Your task to perform on an android device: Clear the shopping cart on ebay.com. Image 0: 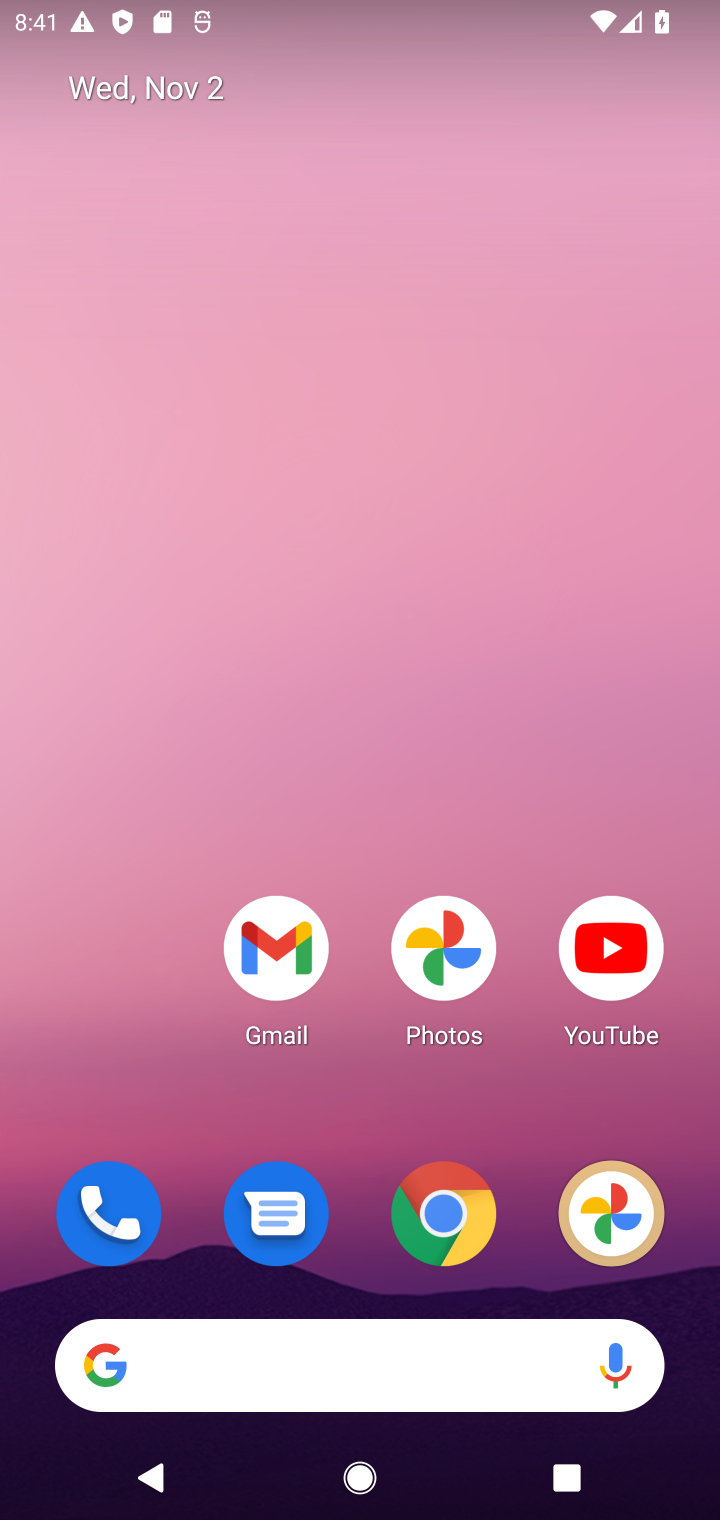
Step 0: click (461, 1245)
Your task to perform on an android device: Clear the shopping cart on ebay.com. Image 1: 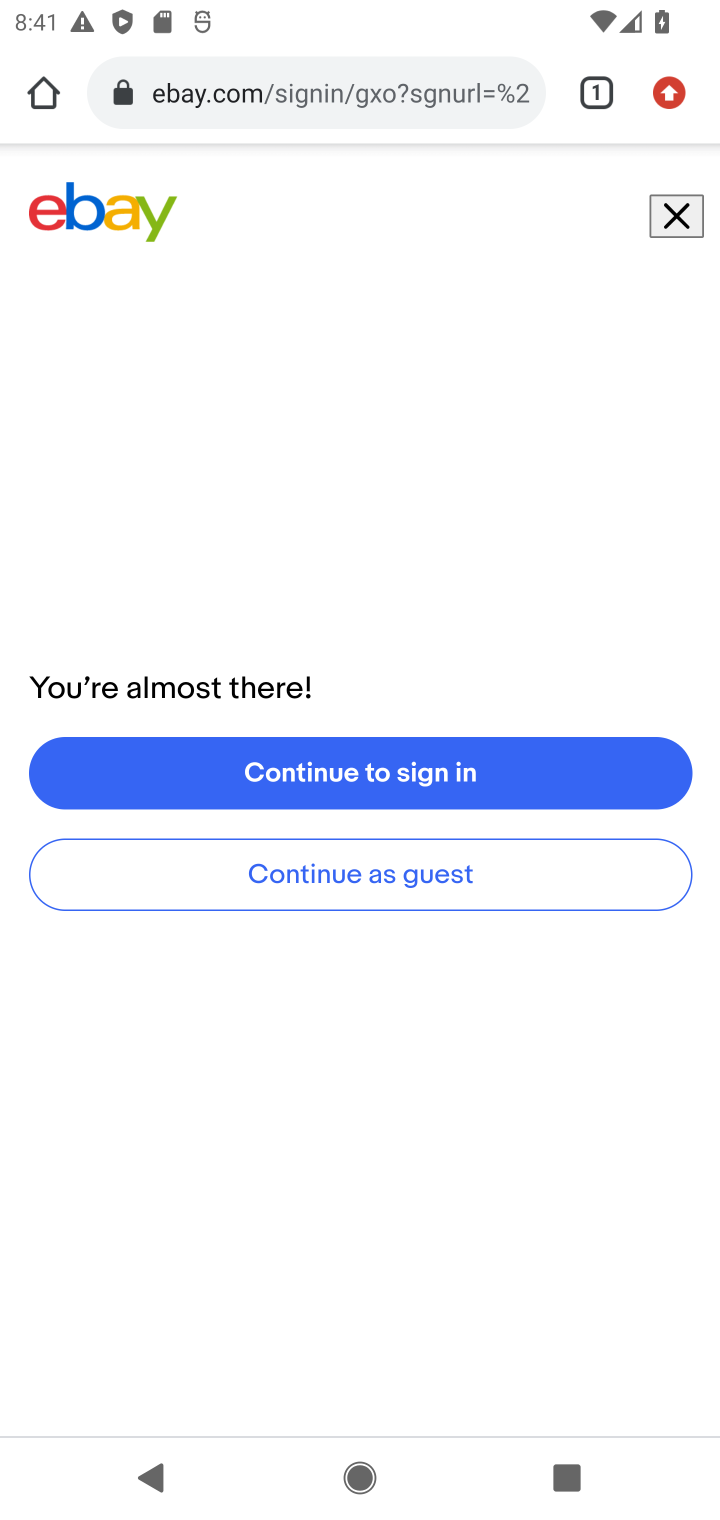
Step 1: click (323, 114)
Your task to perform on an android device: Clear the shopping cart on ebay.com. Image 2: 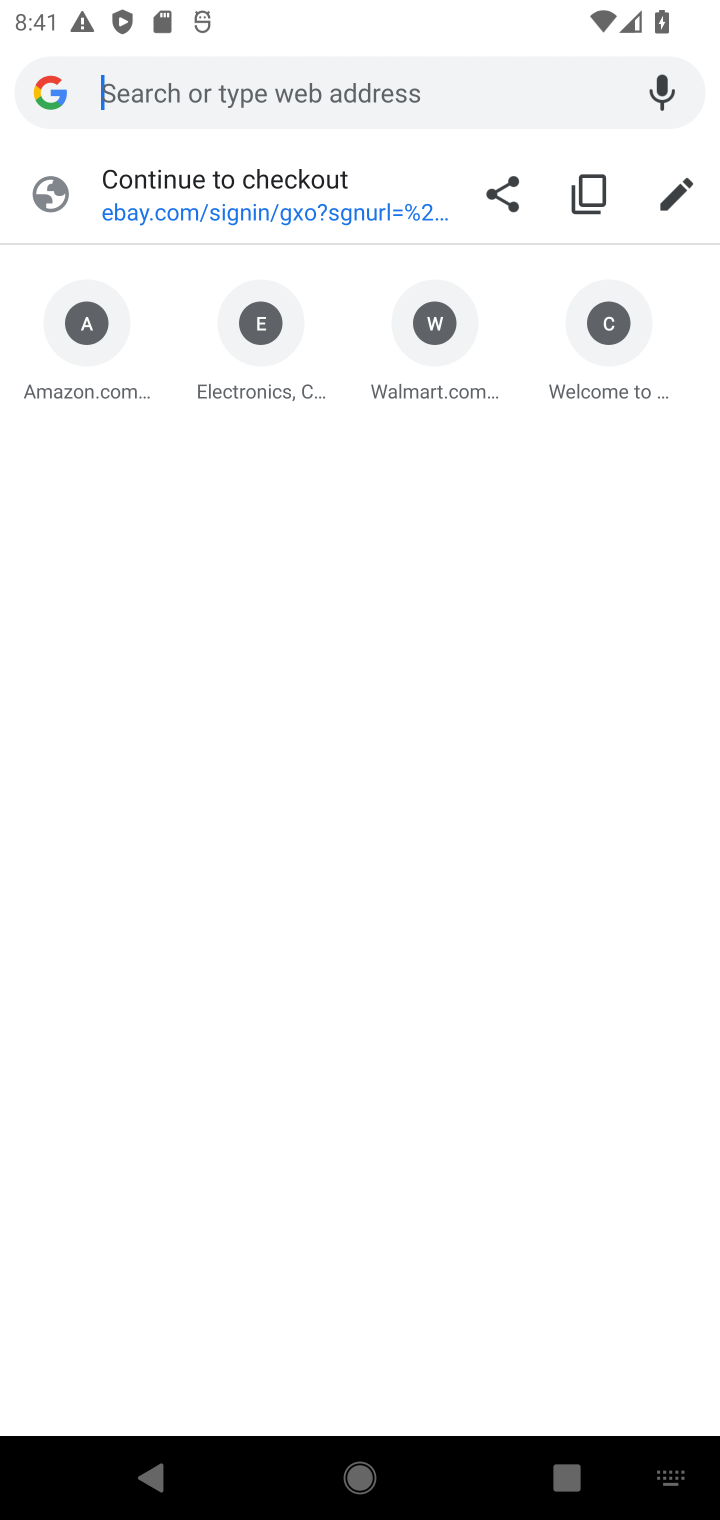
Step 2: type "ebay.com"
Your task to perform on an android device: Clear the shopping cart on ebay.com. Image 3: 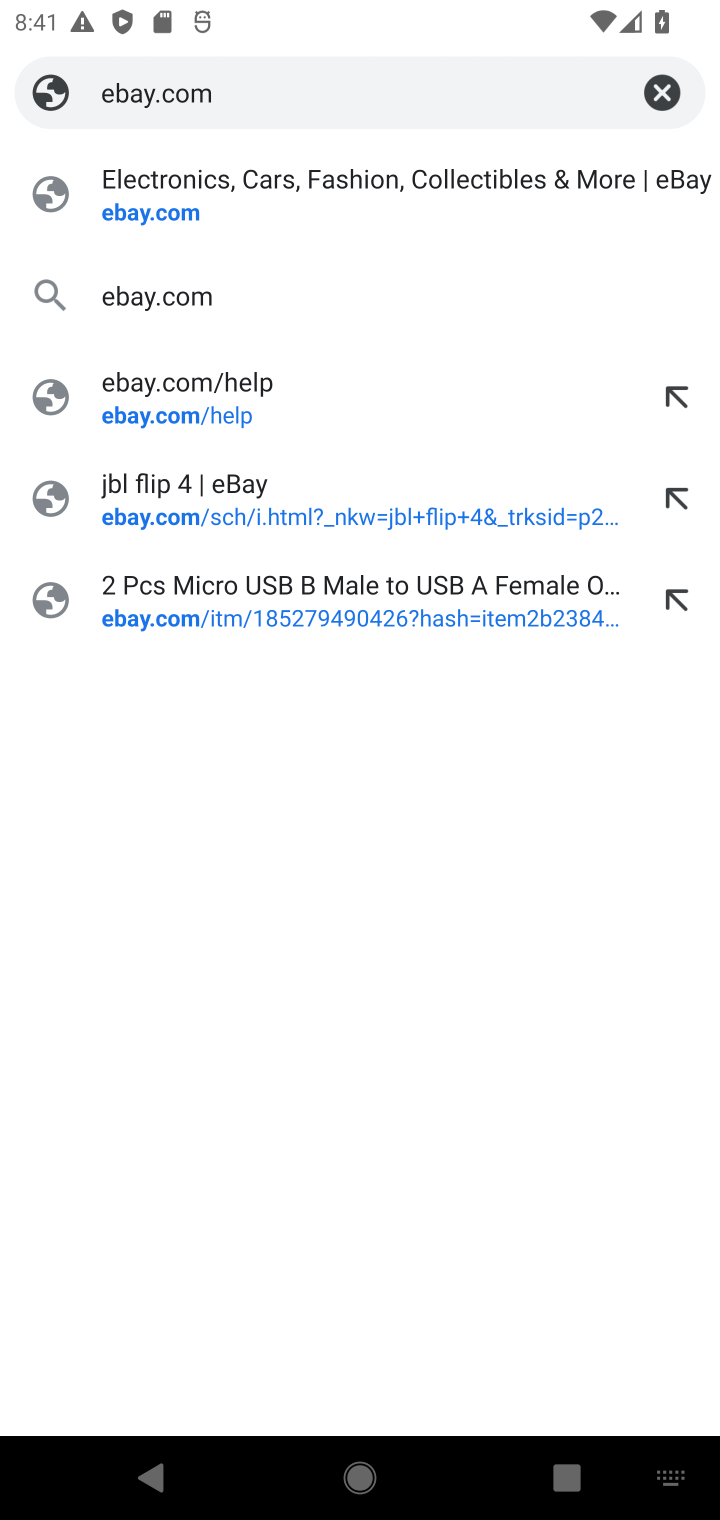
Step 3: click (139, 212)
Your task to perform on an android device: Clear the shopping cart on ebay.com. Image 4: 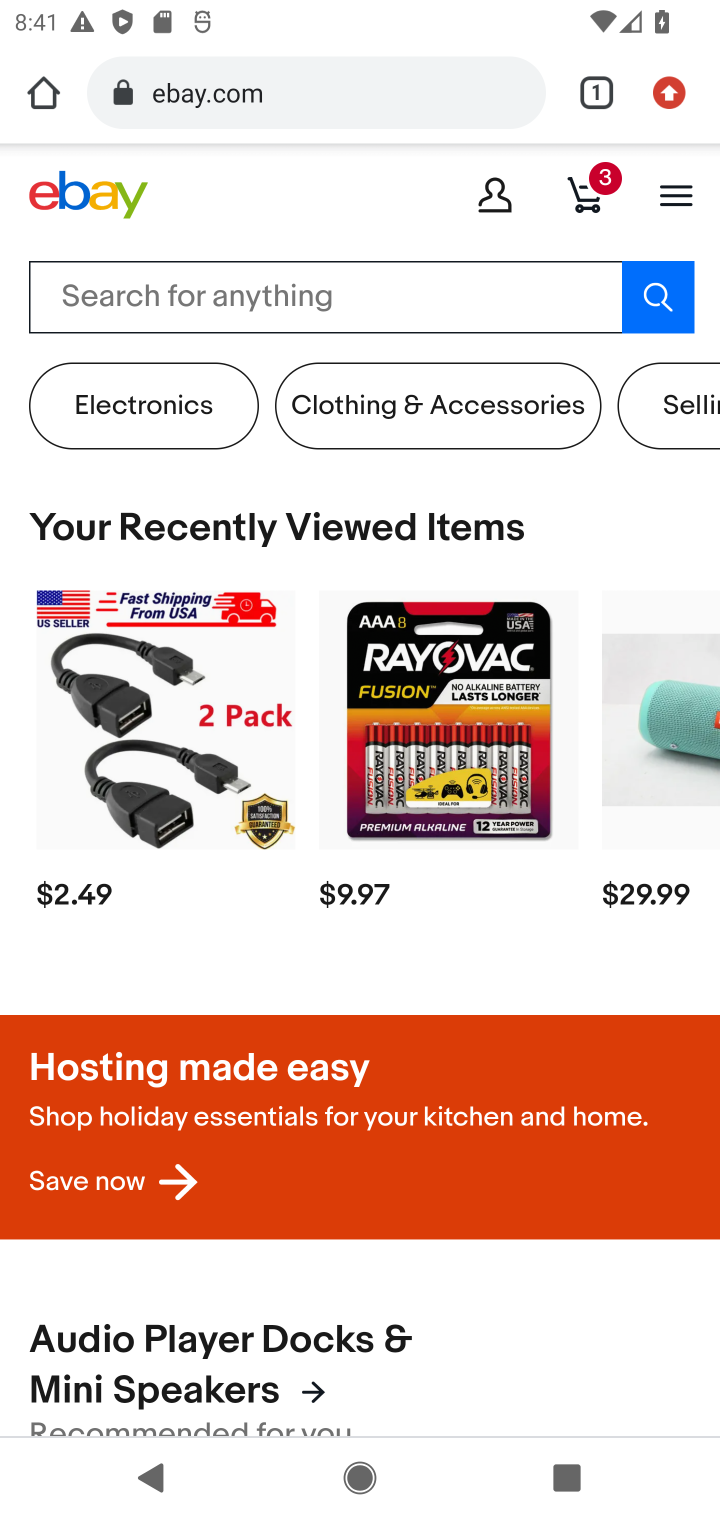
Step 4: click (601, 199)
Your task to perform on an android device: Clear the shopping cart on ebay.com. Image 5: 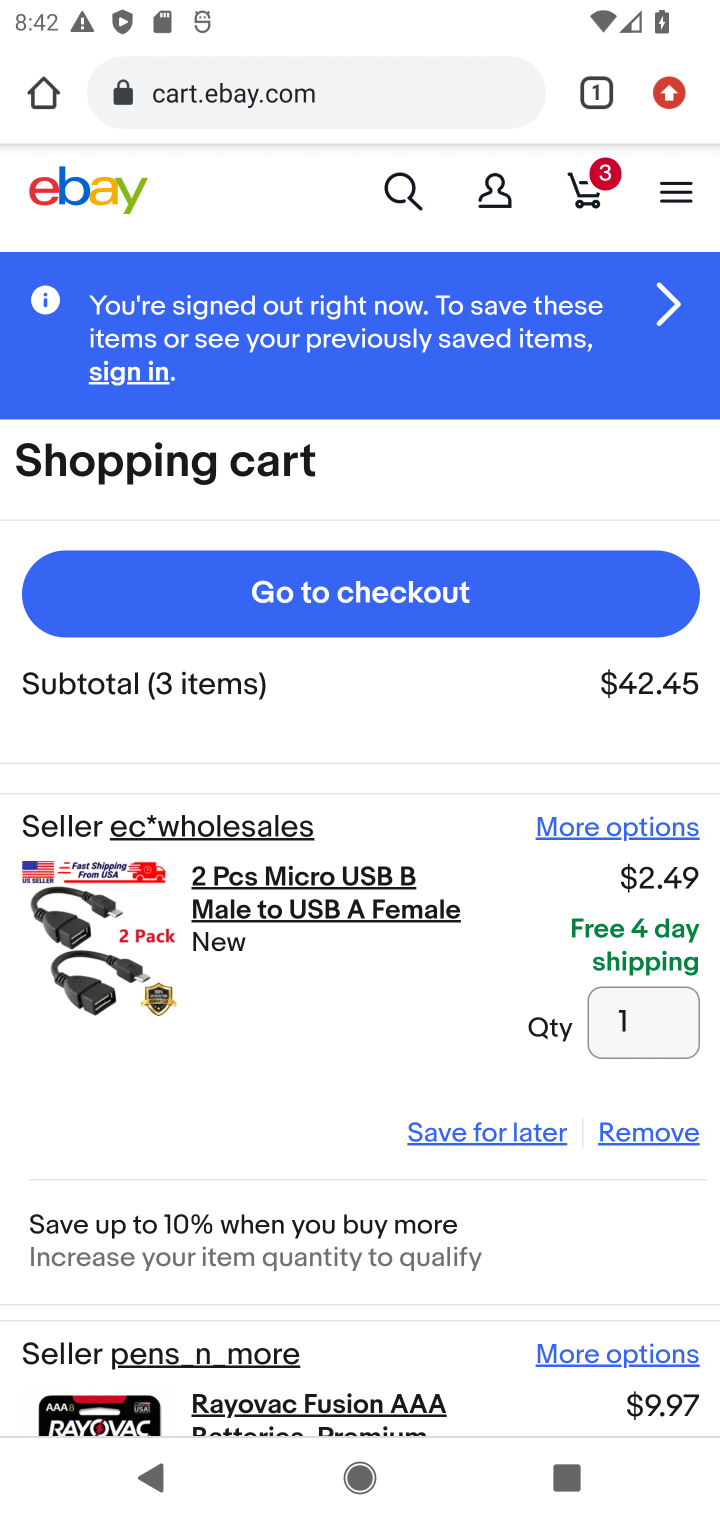
Step 5: click (653, 1145)
Your task to perform on an android device: Clear the shopping cart on ebay.com. Image 6: 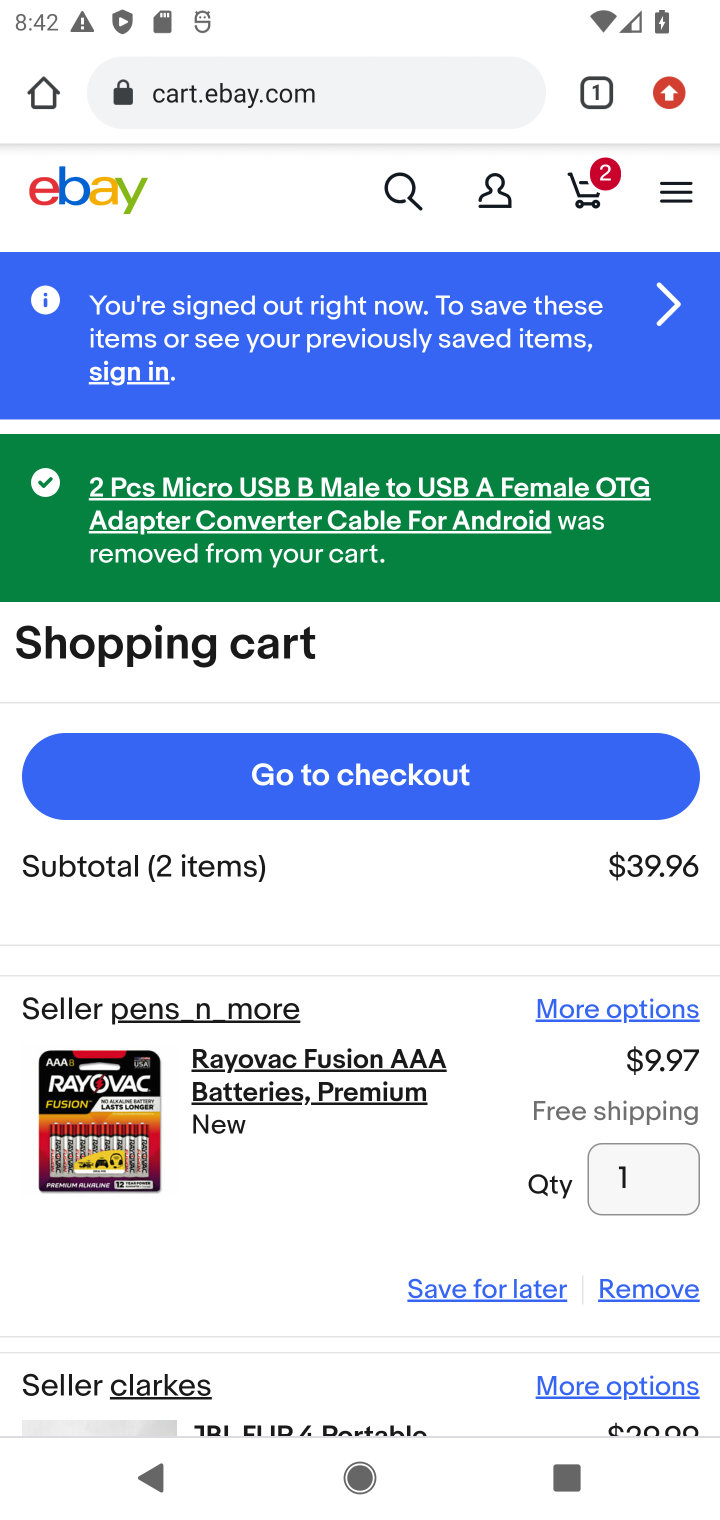
Step 6: click (645, 1301)
Your task to perform on an android device: Clear the shopping cart on ebay.com. Image 7: 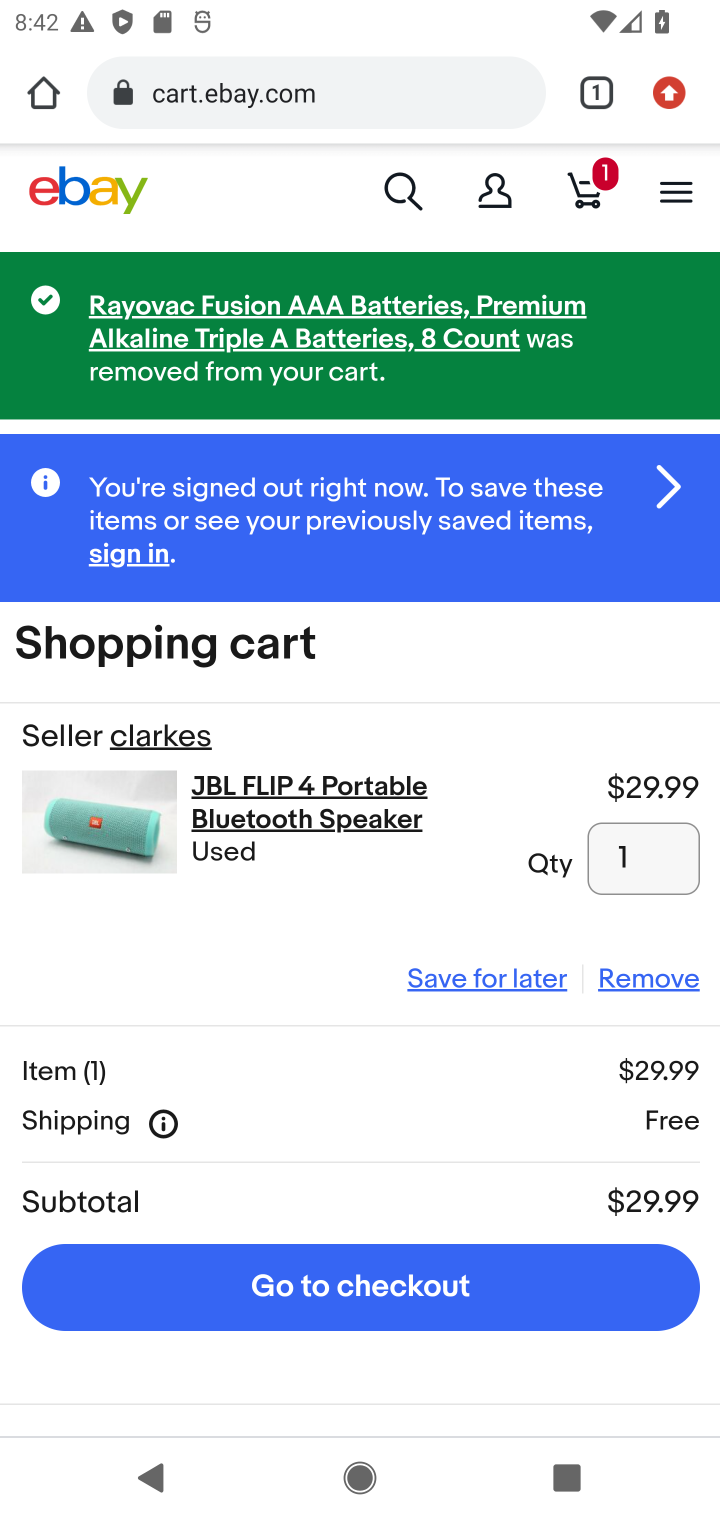
Step 7: click (663, 982)
Your task to perform on an android device: Clear the shopping cart on ebay.com. Image 8: 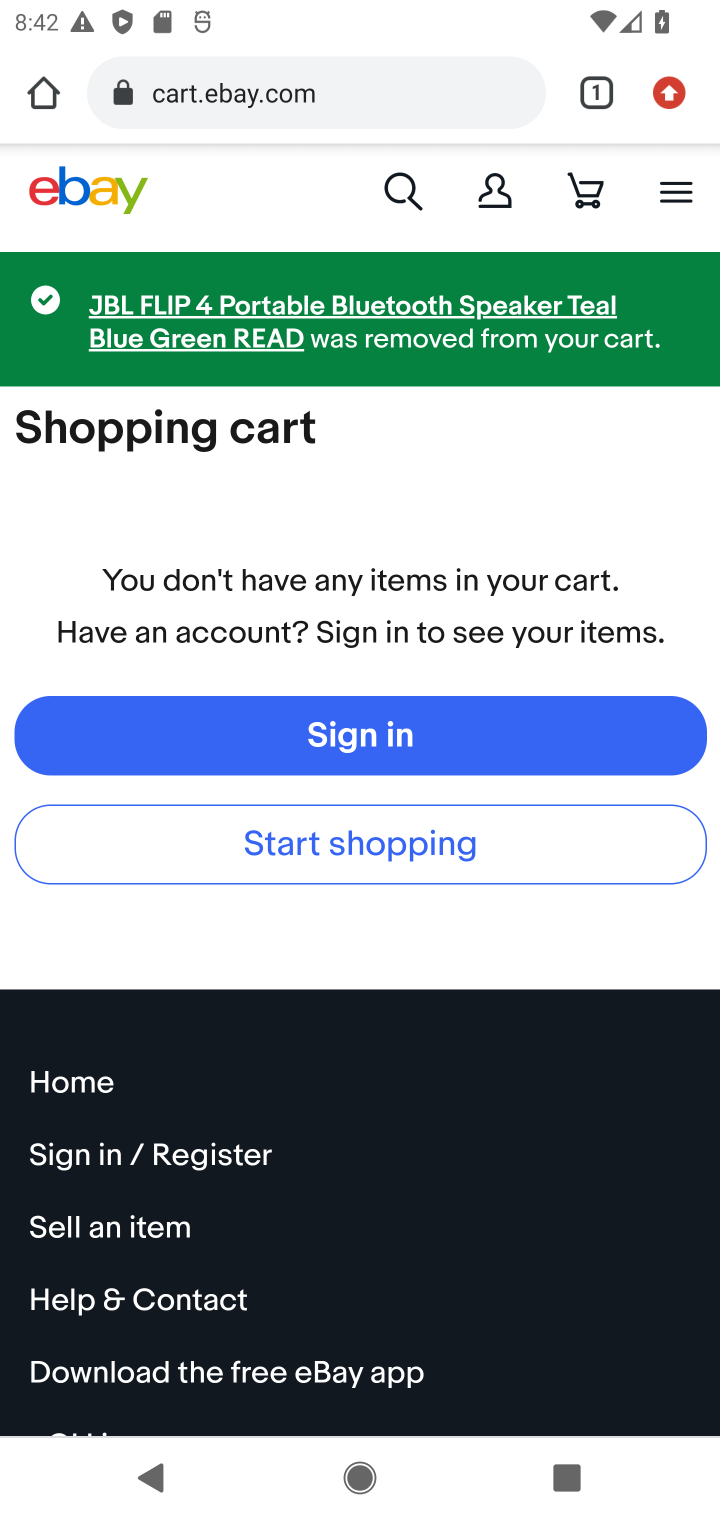
Step 8: task complete